Your task to perform on an android device: Show me recent news Image 0: 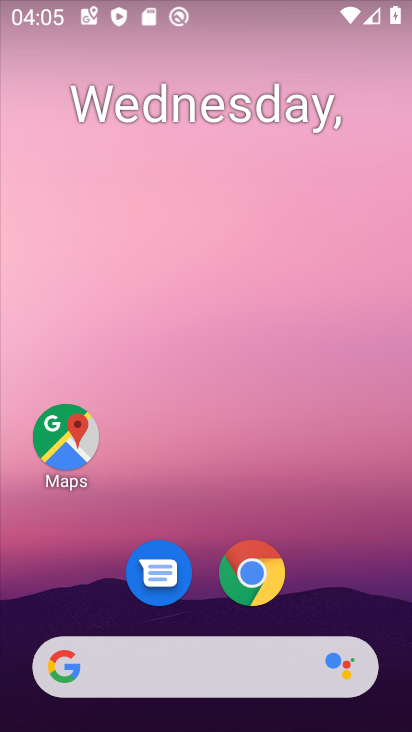
Step 0: drag from (330, 587) to (297, 100)
Your task to perform on an android device: Show me recent news Image 1: 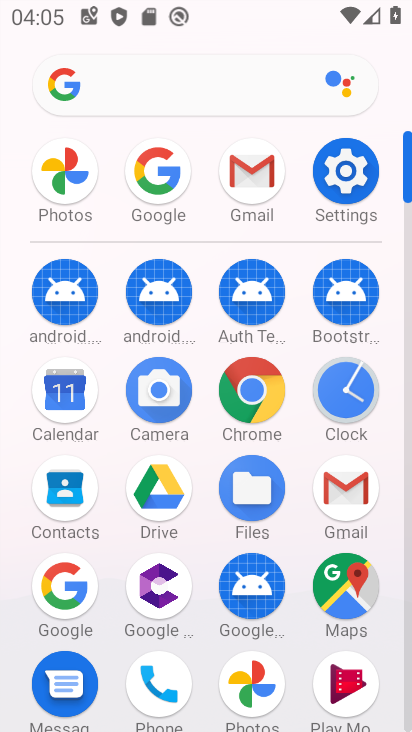
Step 1: click (152, 170)
Your task to perform on an android device: Show me recent news Image 2: 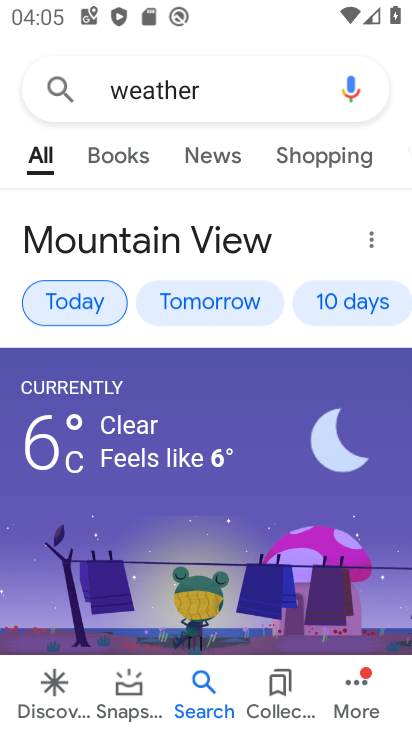
Step 2: click (221, 85)
Your task to perform on an android device: Show me recent news Image 3: 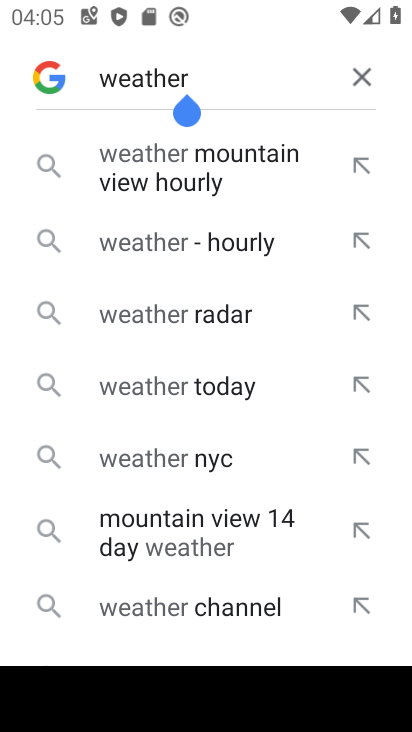
Step 3: click (367, 66)
Your task to perform on an android device: Show me recent news Image 4: 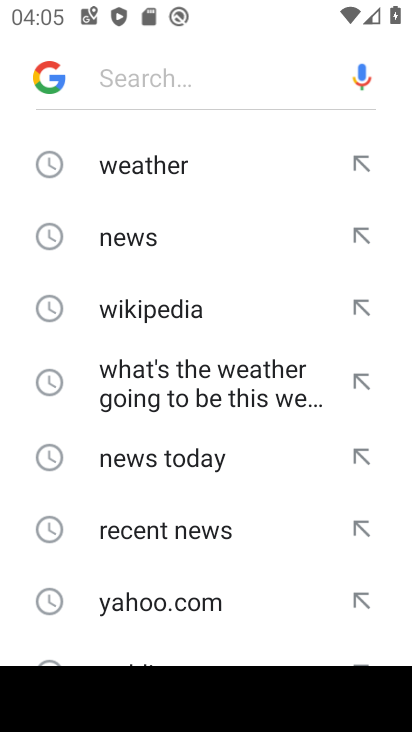
Step 4: click (168, 529)
Your task to perform on an android device: Show me recent news Image 5: 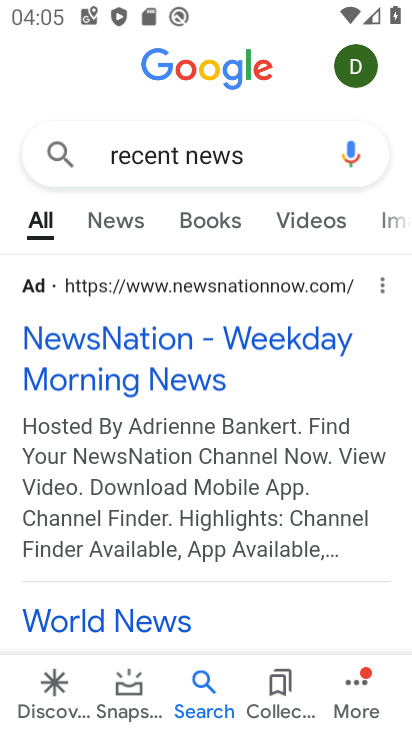
Step 5: task complete